Your task to perform on an android device: What's the weather? Image 0: 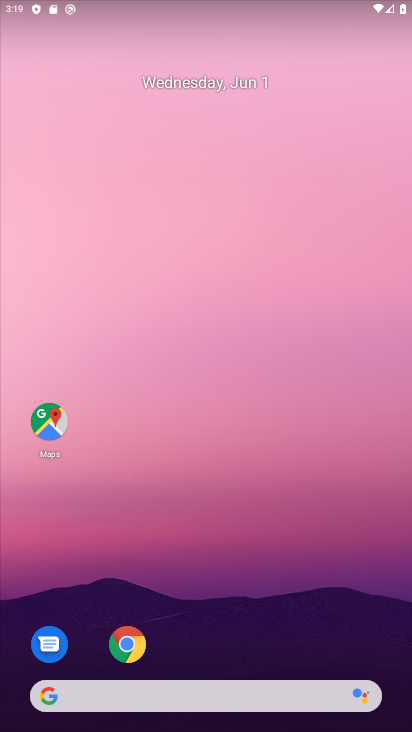
Step 0: click (203, 687)
Your task to perform on an android device: What's the weather? Image 1: 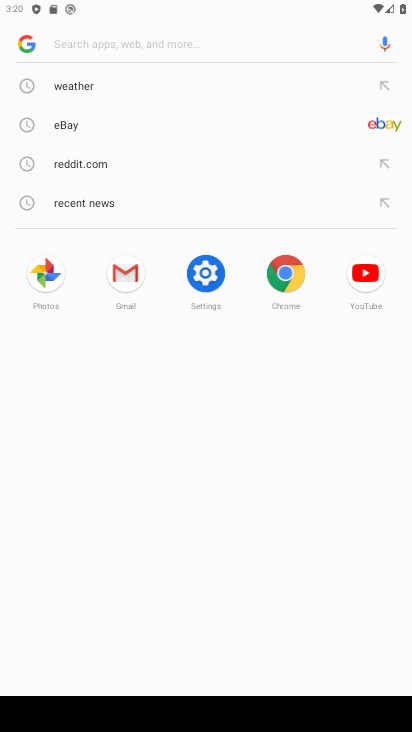
Step 1: click (167, 79)
Your task to perform on an android device: What's the weather? Image 2: 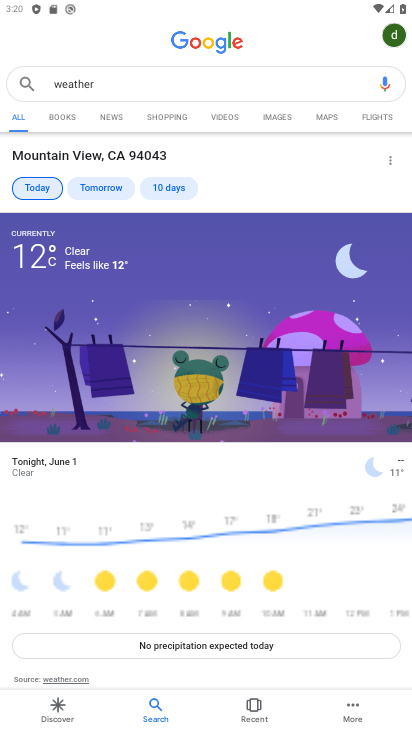
Step 2: task complete